Your task to perform on an android device: Open Google Image 0: 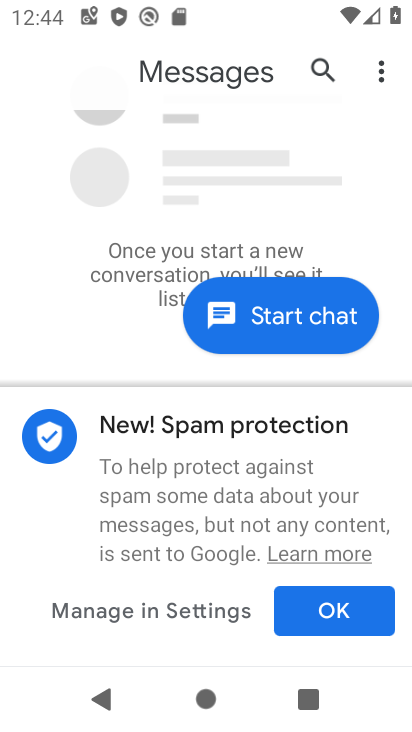
Step 0: press home button
Your task to perform on an android device: Open Google Image 1: 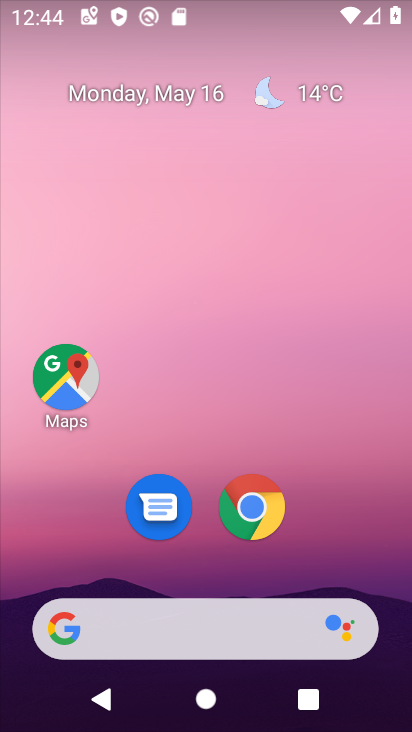
Step 1: drag from (239, 546) to (236, 157)
Your task to perform on an android device: Open Google Image 2: 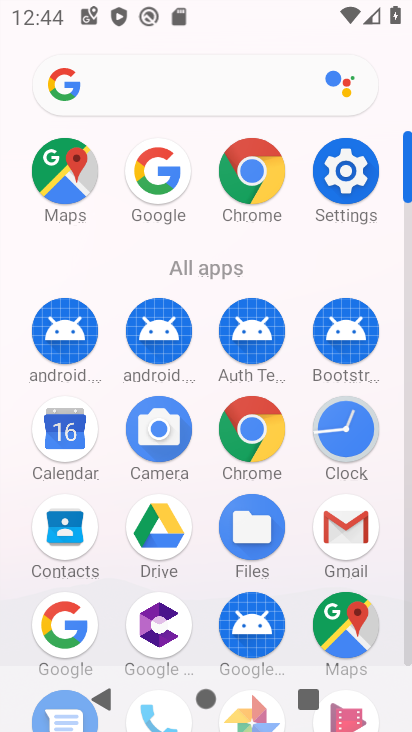
Step 2: click (78, 621)
Your task to perform on an android device: Open Google Image 3: 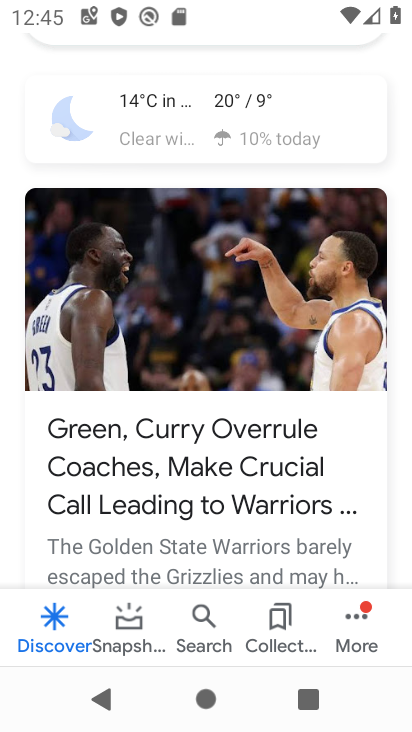
Step 3: task complete